Your task to perform on an android device: When is my next meeting? Image 0: 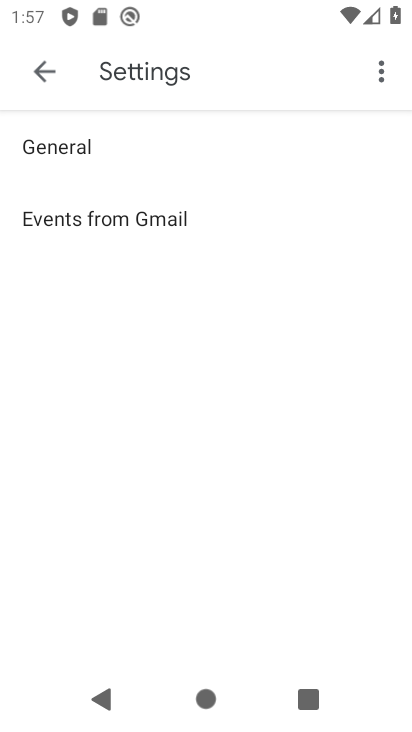
Step 0: press home button
Your task to perform on an android device: When is my next meeting? Image 1: 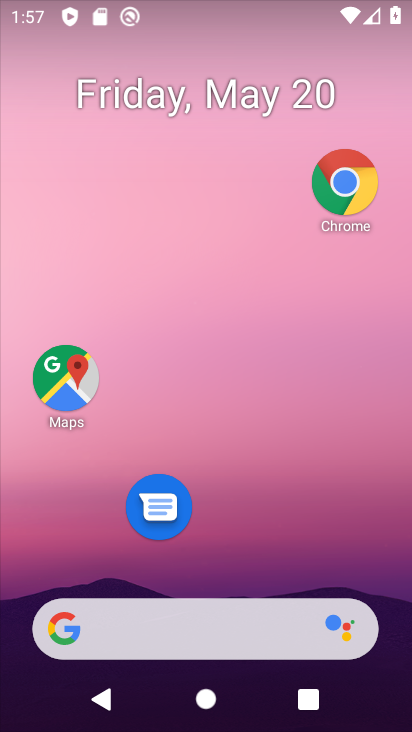
Step 1: drag from (289, 495) to (258, 96)
Your task to perform on an android device: When is my next meeting? Image 2: 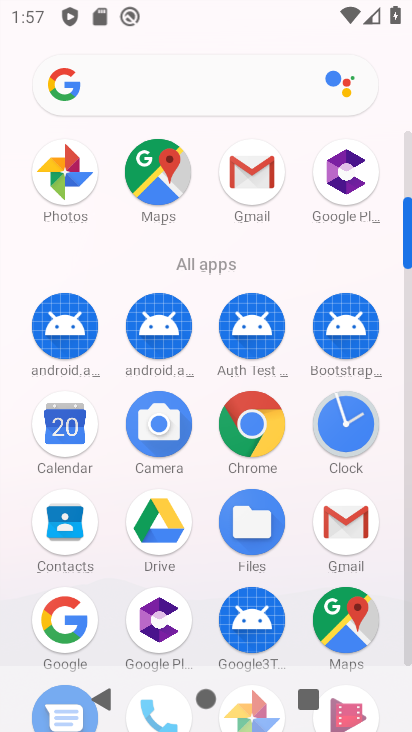
Step 2: click (75, 432)
Your task to perform on an android device: When is my next meeting? Image 3: 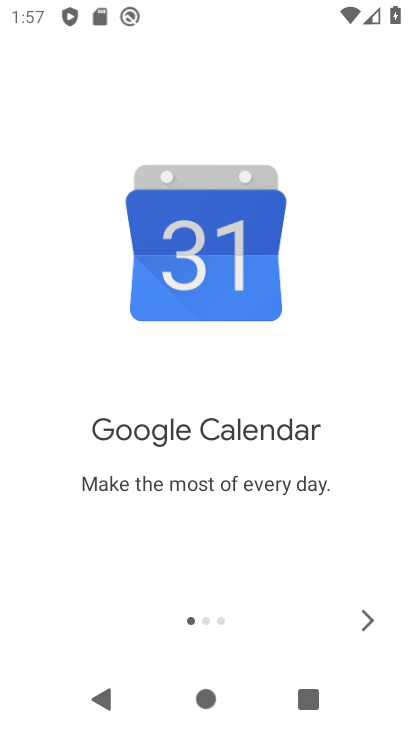
Step 3: click (356, 622)
Your task to perform on an android device: When is my next meeting? Image 4: 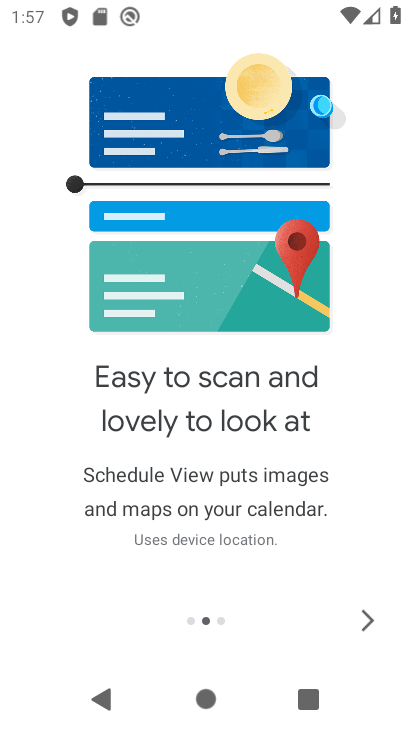
Step 4: click (356, 623)
Your task to perform on an android device: When is my next meeting? Image 5: 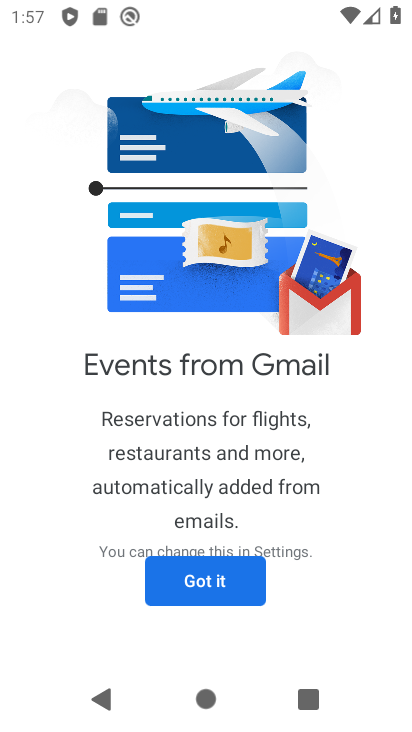
Step 5: click (209, 591)
Your task to perform on an android device: When is my next meeting? Image 6: 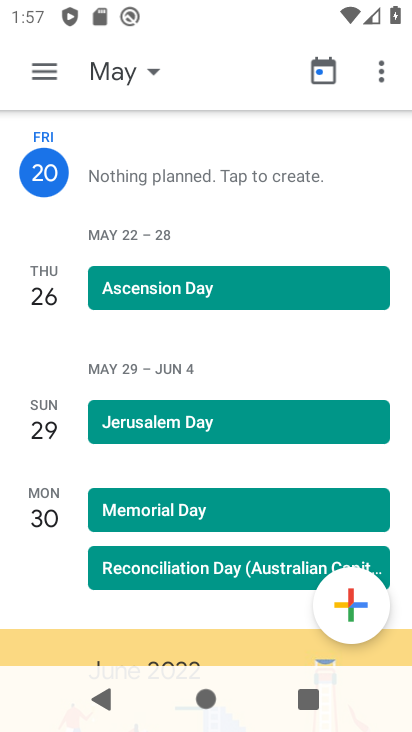
Step 6: click (137, 67)
Your task to perform on an android device: When is my next meeting? Image 7: 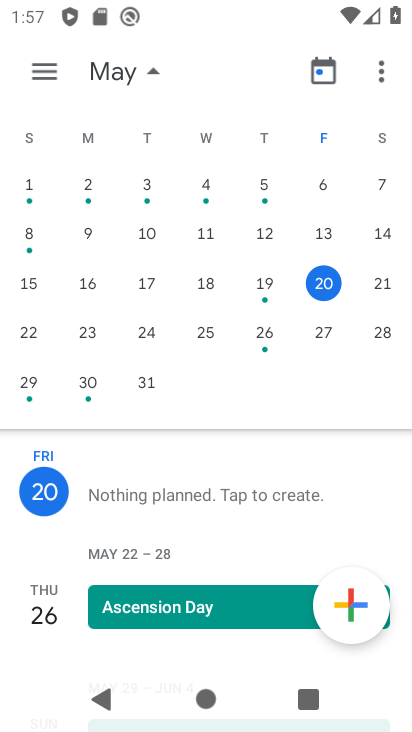
Step 7: click (142, 334)
Your task to perform on an android device: When is my next meeting? Image 8: 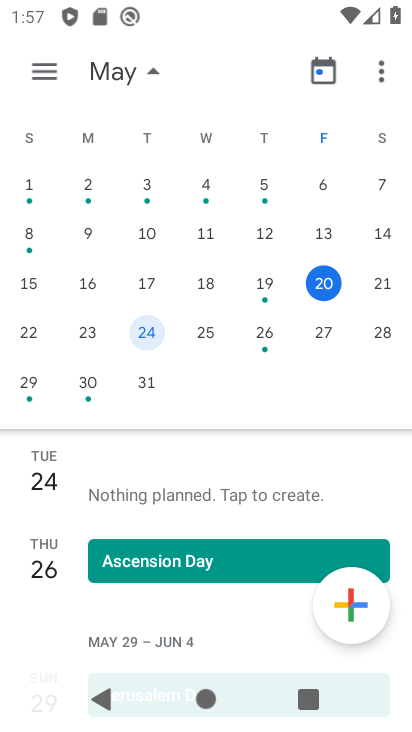
Step 8: task complete